Your task to perform on an android device: turn notification dots off Image 0: 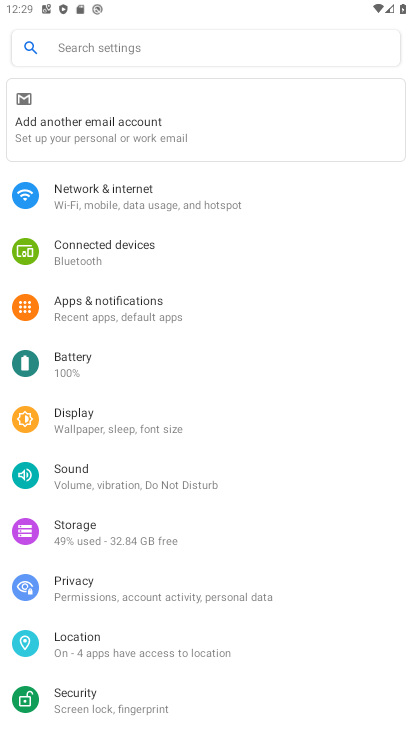
Step 0: click (149, 302)
Your task to perform on an android device: turn notification dots off Image 1: 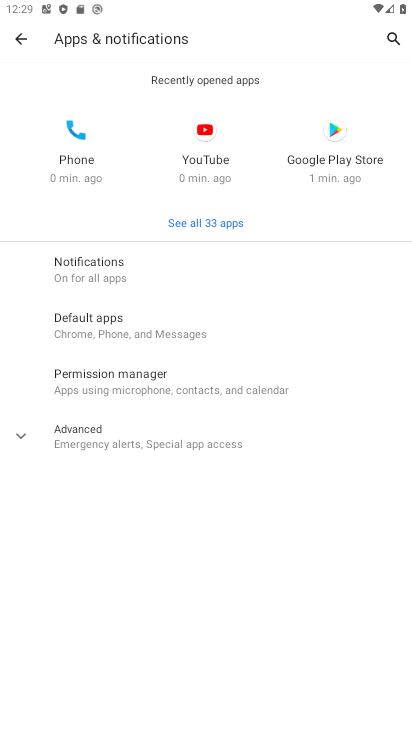
Step 1: click (108, 267)
Your task to perform on an android device: turn notification dots off Image 2: 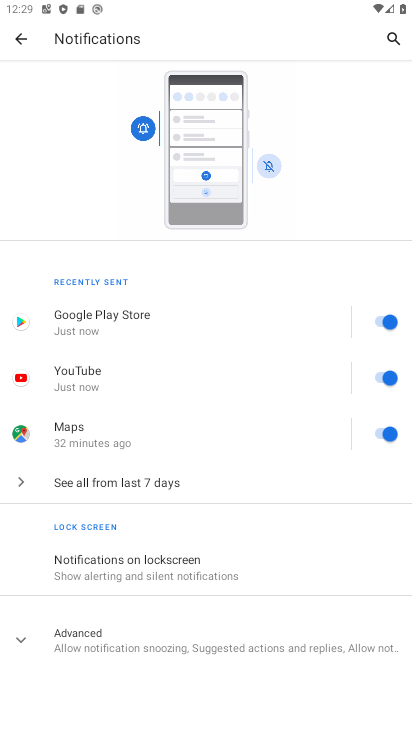
Step 2: click (142, 649)
Your task to perform on an android device: turn notification dots off Image 3: 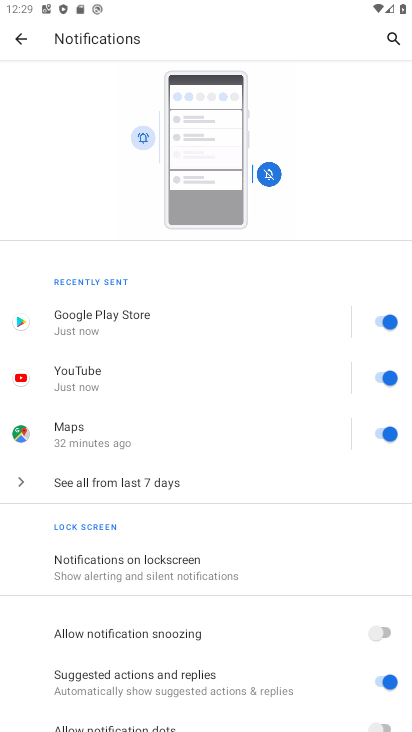
Step 3: task complete